Your task to perform on an android device: toggle data saver in the chrome app Image 0: 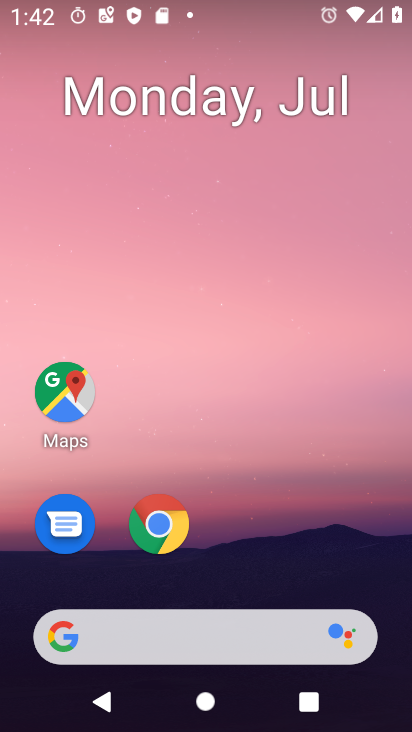
Step 0: click (161, 531)
Your task to perform on an android device: toggle data saver in the chrome app Image 1: 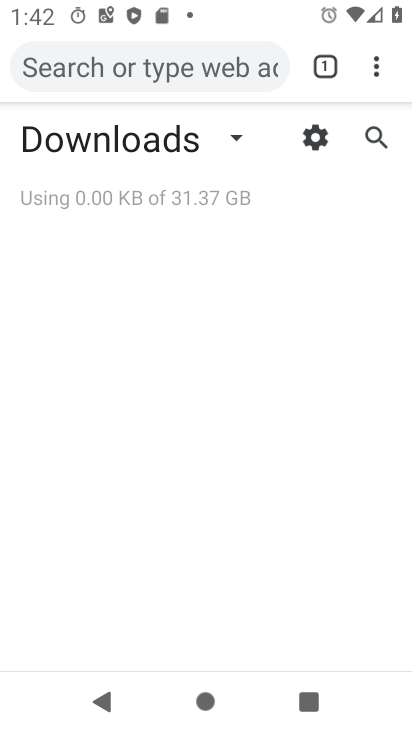
Step 1: drag from (374, 58) to (190, 571)
Your task to perform on an android device: toggle data saver in the chrome app Image 2: 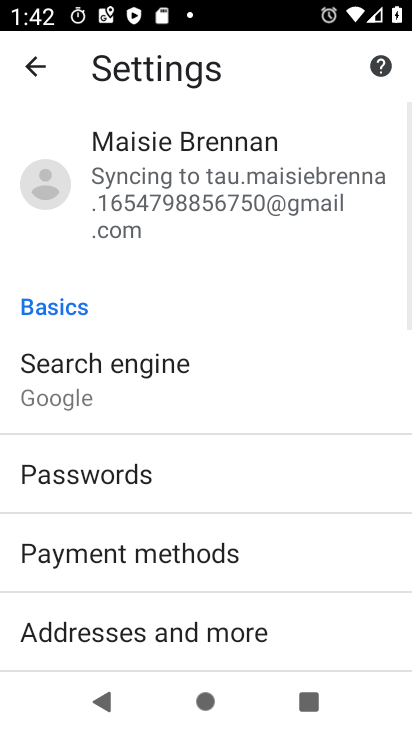
Step 2: drag from (257, 393) to (251, 33)
Your task to perform on an android device: toggle data saver in the chrome app Image 3: 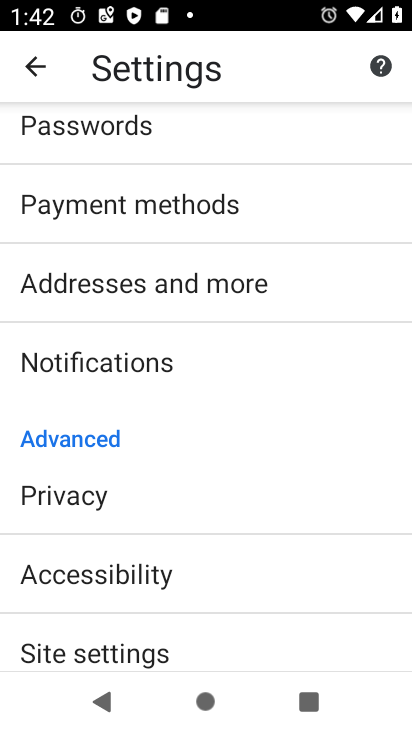
Step 3: drag from (203, 455) to (189, 185)
Your task to perform on an android device: toggle data saver in the chrome app Image 4: 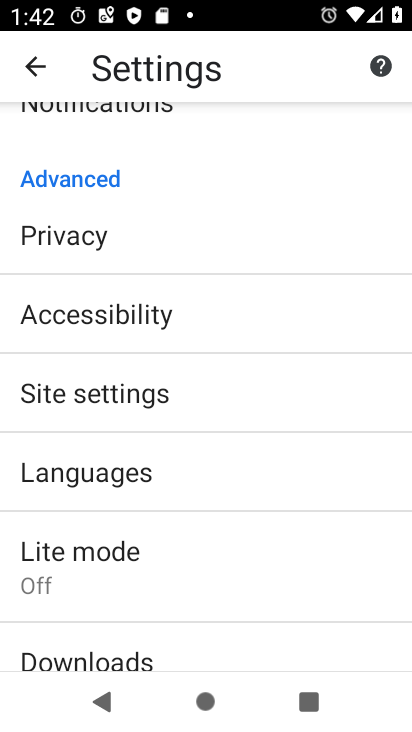
Step 4: click (101, 565)
Your task to perform on an android device: toggle data saver in the chrome app Image 5: 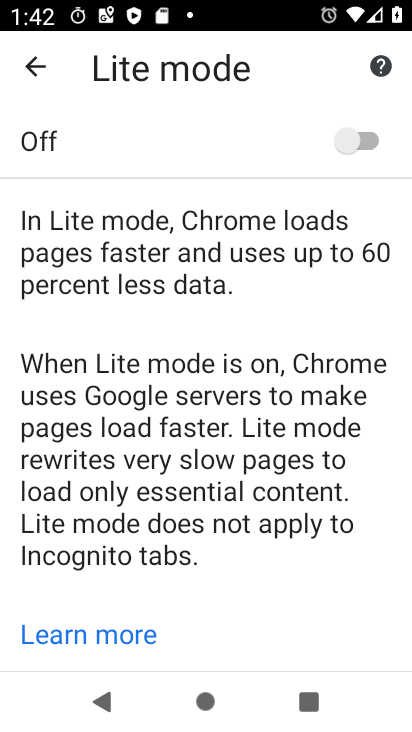
Step 5: click (349, 128)
Your task to perform on an android device: toggle data saver in the chrome app Image 6: 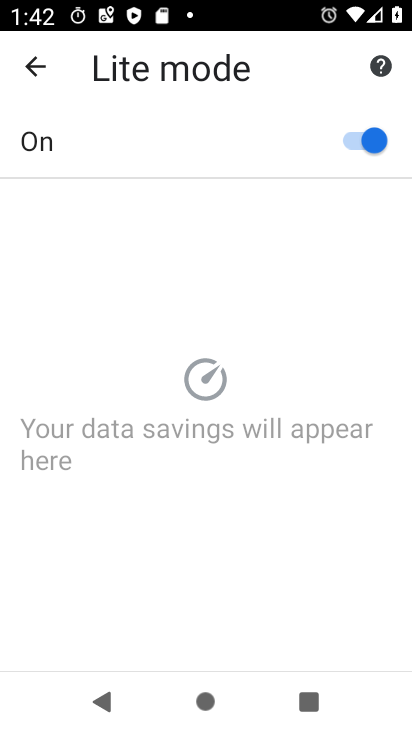
Step 6: task complete